Your task to perform on an android device: uninstall "Google Sheets" Image 0: 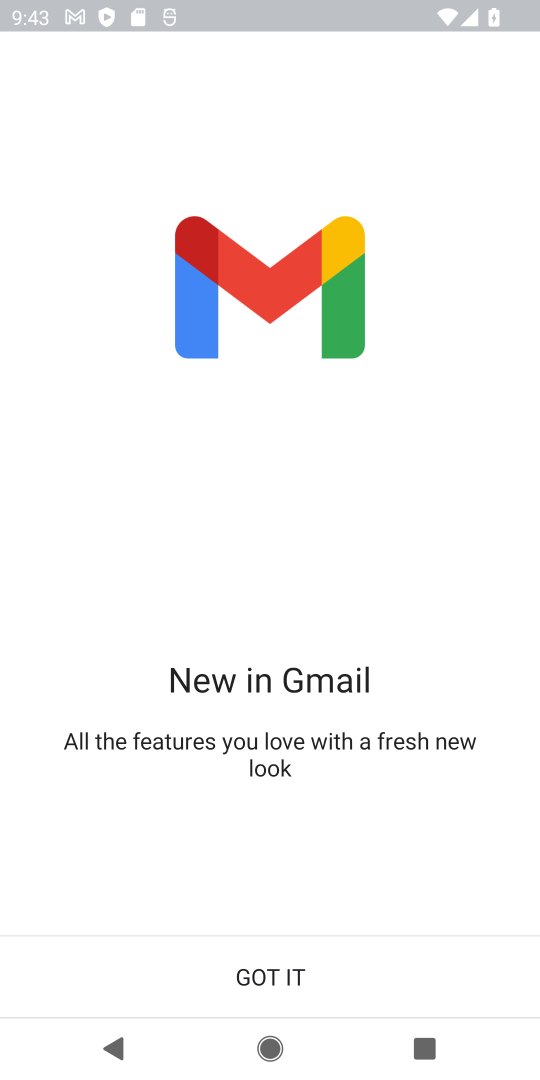
Step 0: click (201, 992)
Your task to perform on an android device: uninstall "Google Sheets" Image 1: 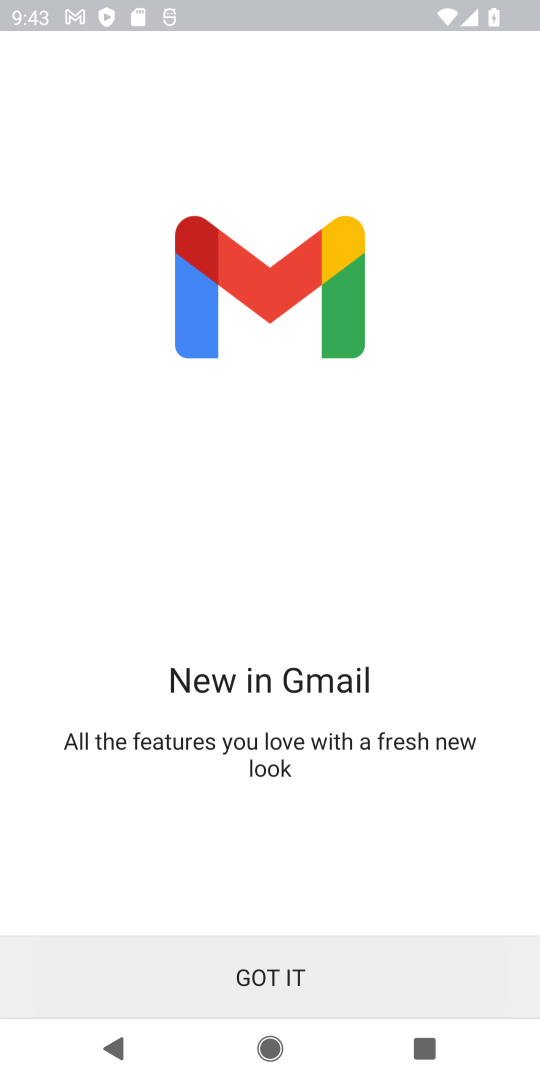
Step 1: press back button
Your task to perform on an android device: uninstall "Google Sheets" Image 2: 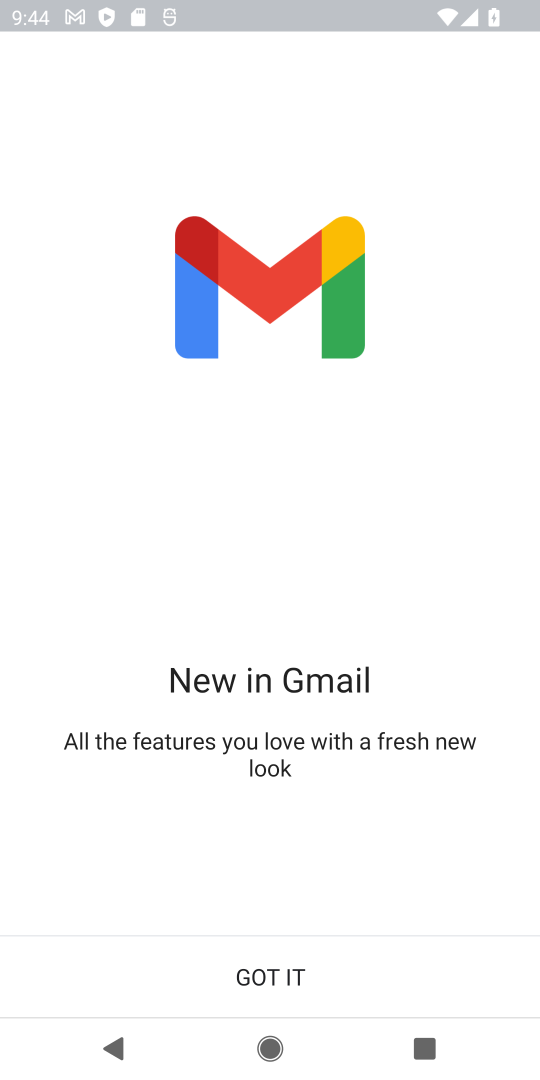
Step 2: press home button
Your task to perform on an android device: uninstall "Google Sheets" Image 3: 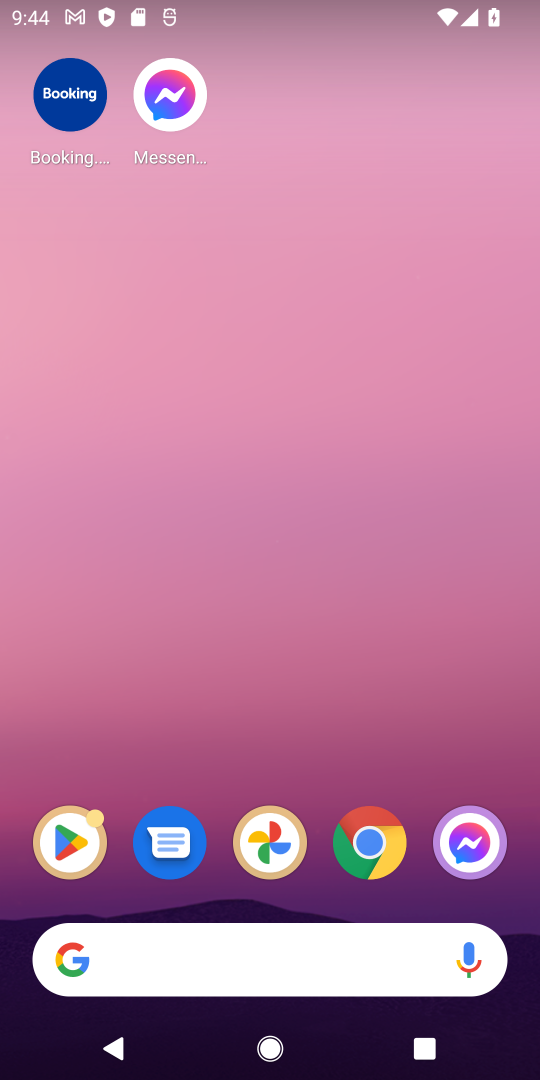
Step 3: click (79, 860)
Your task to perform on an android device: uninstall "Google Sheets" Image 4: 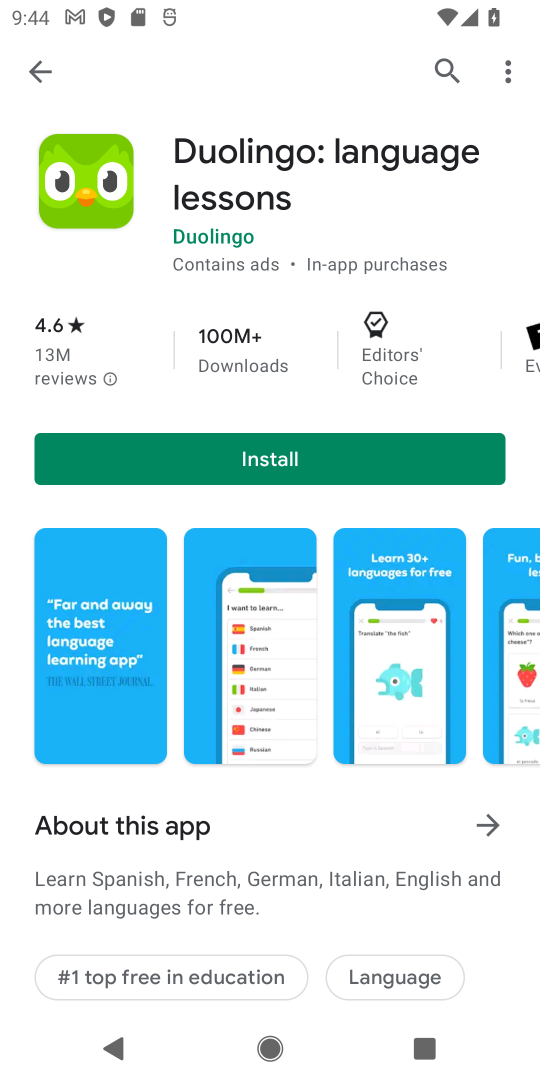
Step 4: click (442, 60)
Your task to perform on an android device: uninstall "Google Sheets" Image 5: 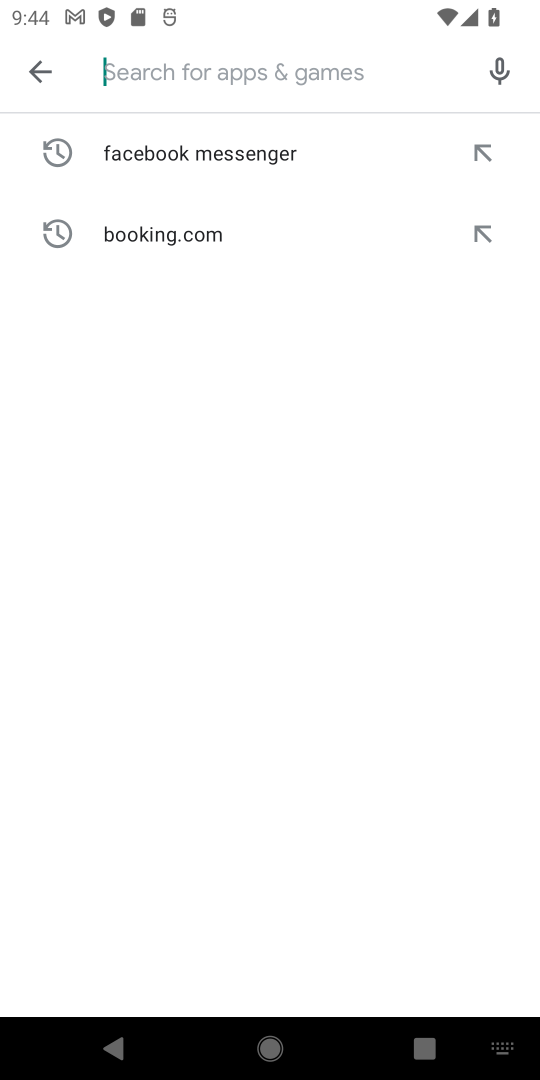
Step 5: click (162, 69)
Your task to perform on an android device: uninstall "Google Sheets" Image 6: 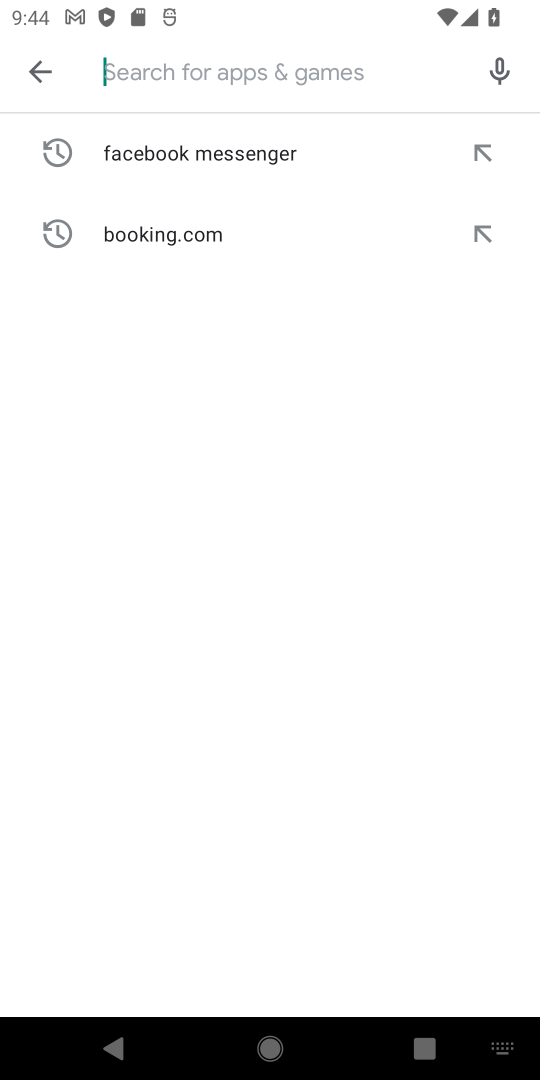
Step 6: type "Google Sheets"
Your task to perform on an android device: uninstall "Google Sheets" Image 7: 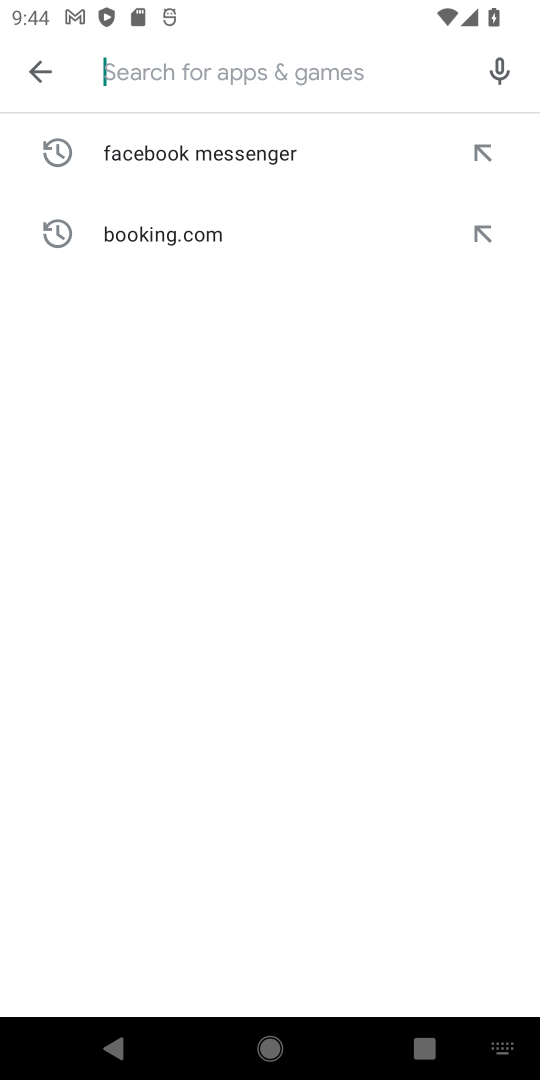
Step 7: click (376, 406)
Your task to perform on an android device: uninstall "Google Sheets" Image 8: 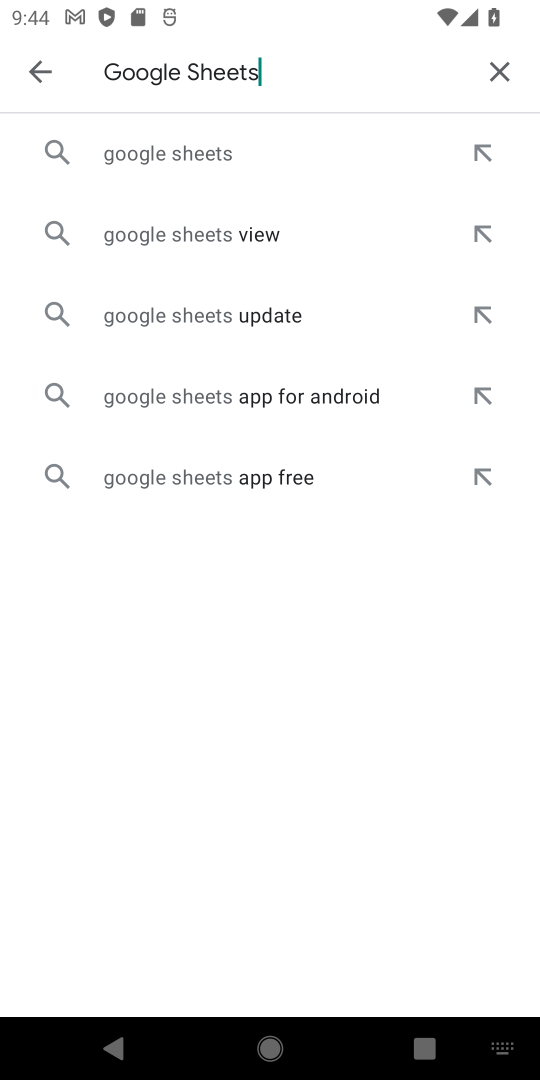
Step 8: click (185, 148)
Your task to perform on an android device: uninstall "Google Sheets" Image 9: 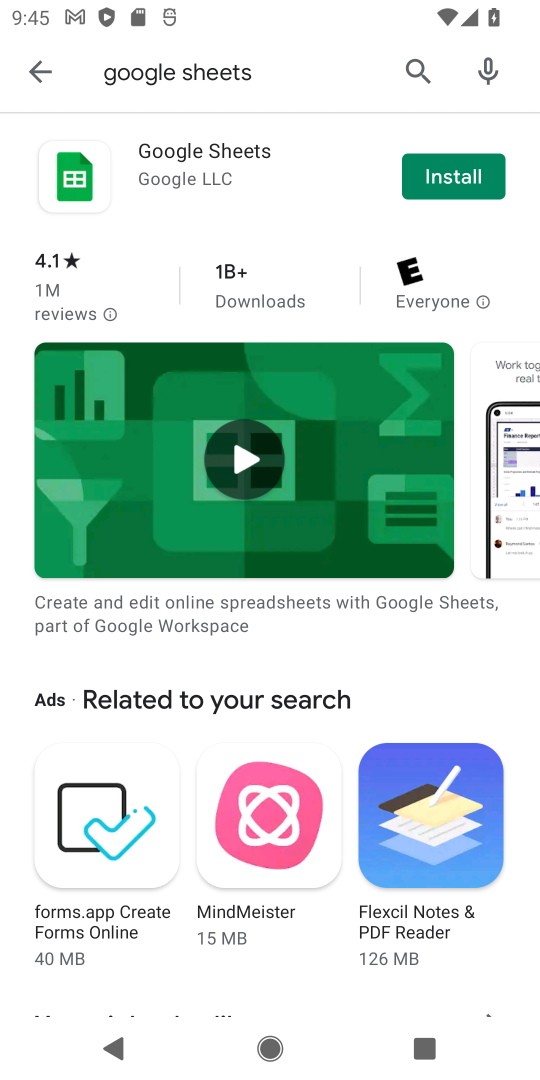
Step 9: task complete